Your task to perform on an android device: Open Youtube and go to "Your channel" Image 0: 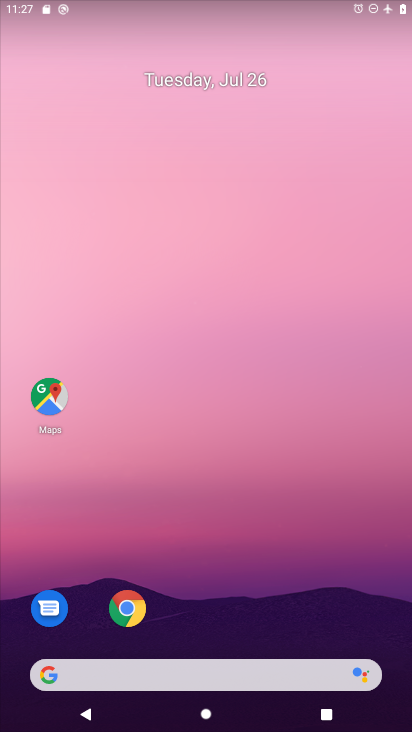
Step 0: drag from (311, 501) to (315, 95)
Your task to perform on an android device: Open Youtube and go to "Your channel" Image 1: 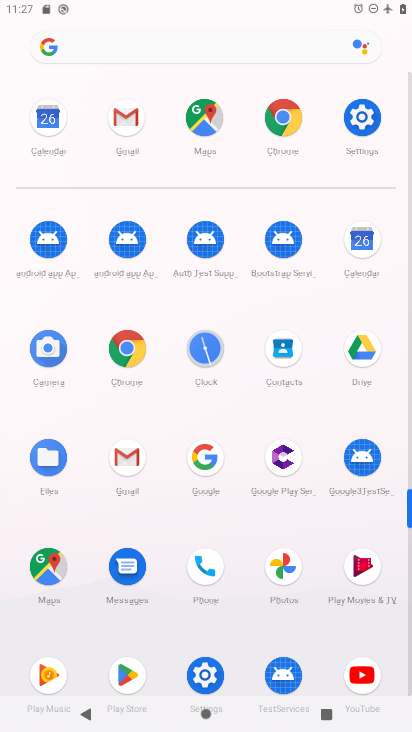
Step 1: click (363, 672)
Your task to perform on an android device: Open Youtube and go to "Your channel" Image 2: 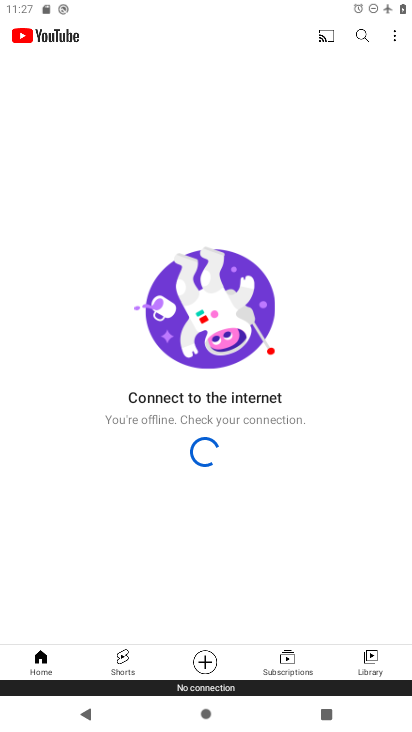
Step 2: click (369, 668)
Your task to perform on an android device: Open Youtube and go to "Your channel" Image 3: 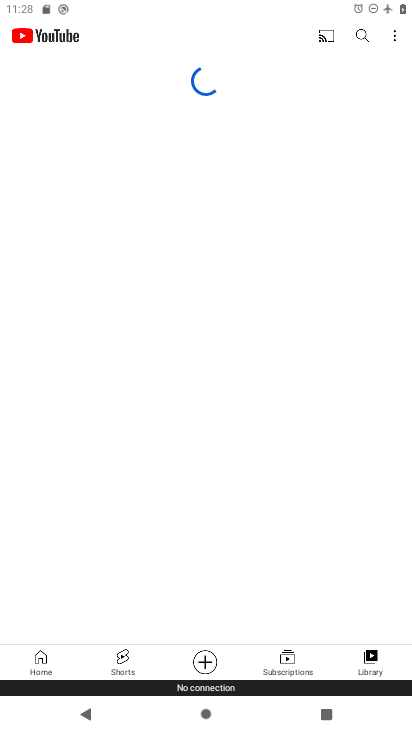
Step 3: click (39, 664)
Your task to perform on an android device: Open Youtube and go to "Your channel" Image 4: 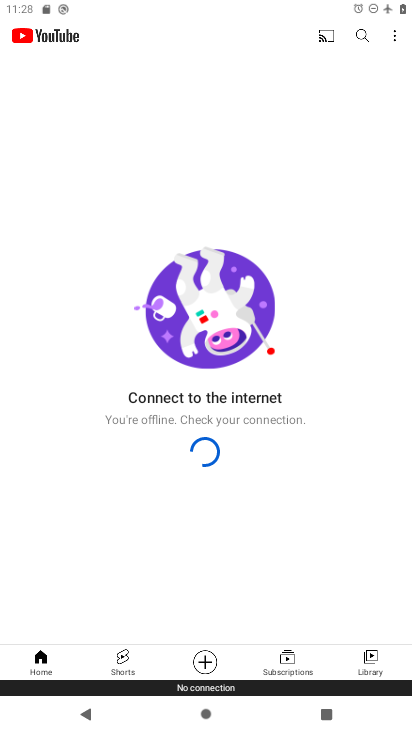
Step 4: task complete